Your task to perform on an android device: turn on translation in the chrome app Image 0: 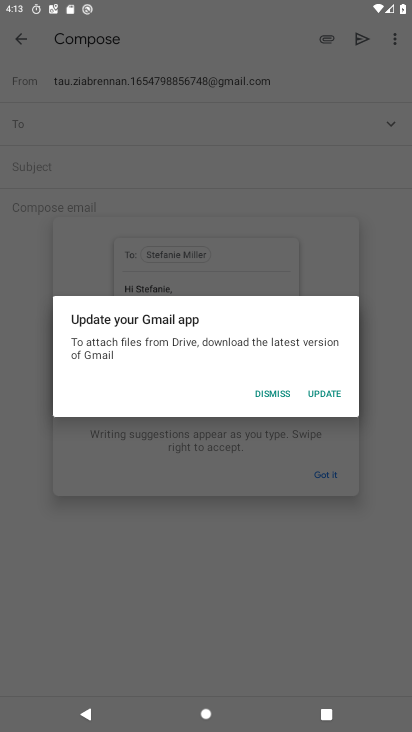
Step 0: press home button
Your task to perform on an android device: turn on translation in the chrome app Image 1: 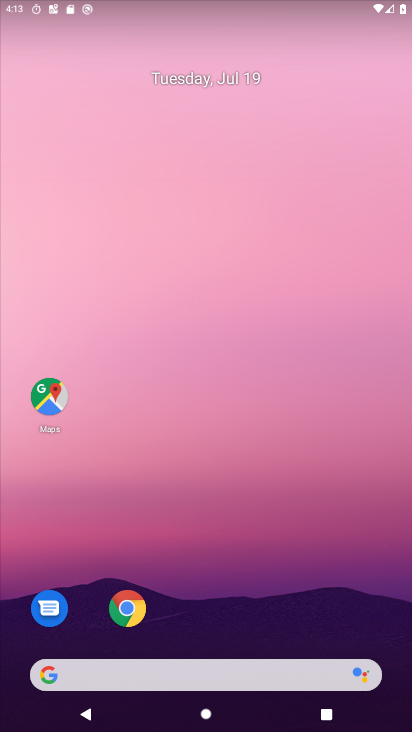
Step 1: click (128, 610)
Your task to perform on an android device: turn on translation in the chrome app Image 2: 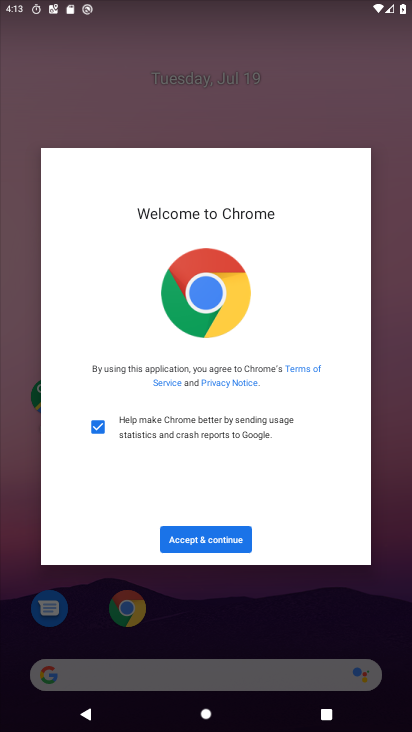
Step 2: click (203, 538)
Your task to perform on an android device: turn on translation in the chrome app Image 3: 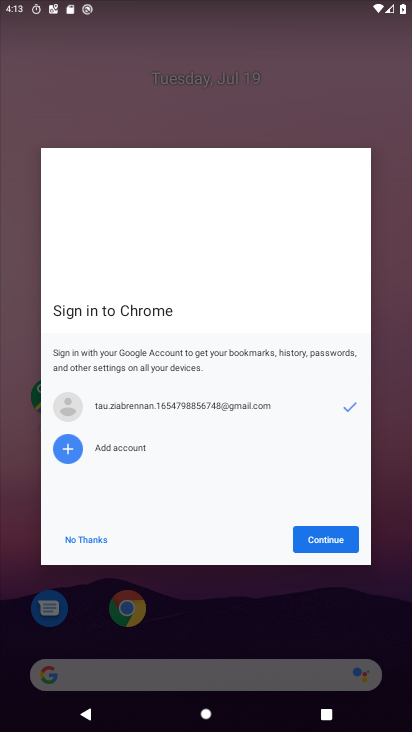
Step 3: click (321, 536)
Your task to perform on an android device: turn on translation in the chrome app Image 4: 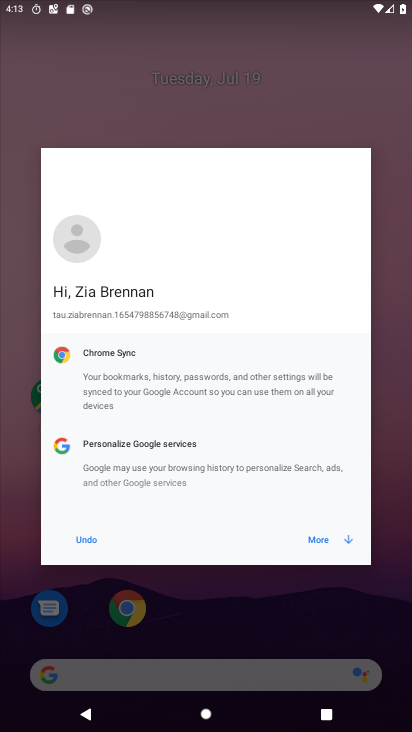
Step 4: click (319, 540)
Your task to perform on an android device: turn on translation in the chrome app Image 5: 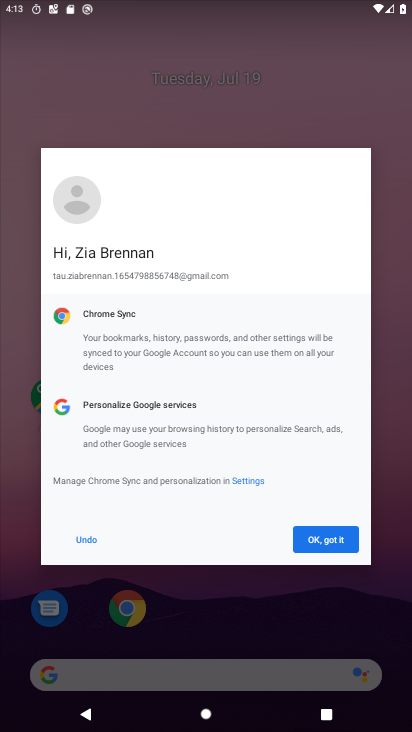
Step 5: click (319, 540)
Your task to perform on an android device: turn on translation in the chrome app Image 6: 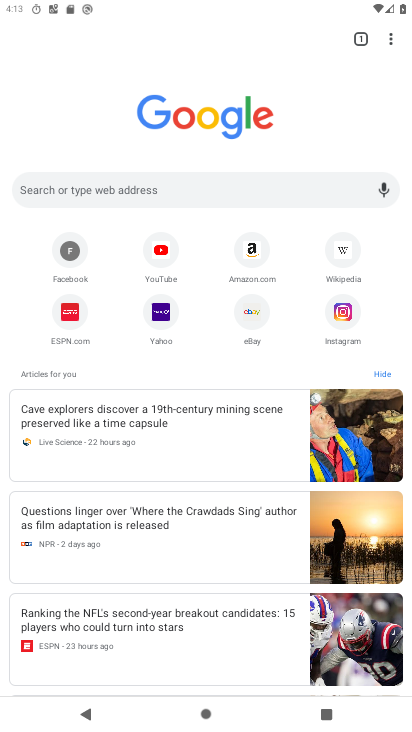
Step 6: click (391, 37)
Your task to perform on an android device: turn on translation in the chrome app Image 7: 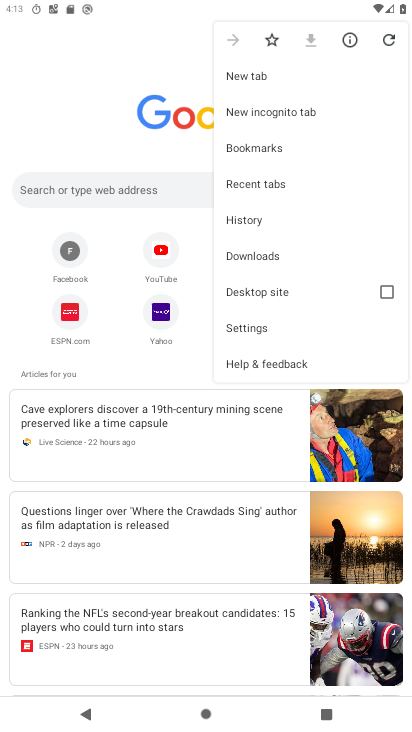
Step 7: click (258, 327)
Your task to perform on an android device: turn on translation in the chrome app Image 8: 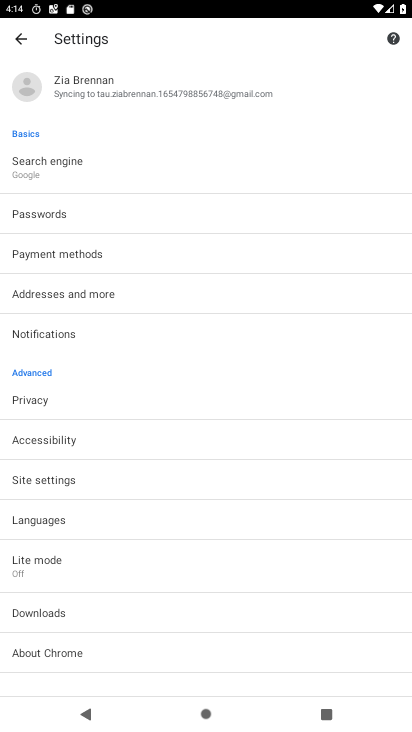
Step 8: click (50, 521)
Your task to perform on an android device: turn on translation in the chrome app Image 9: 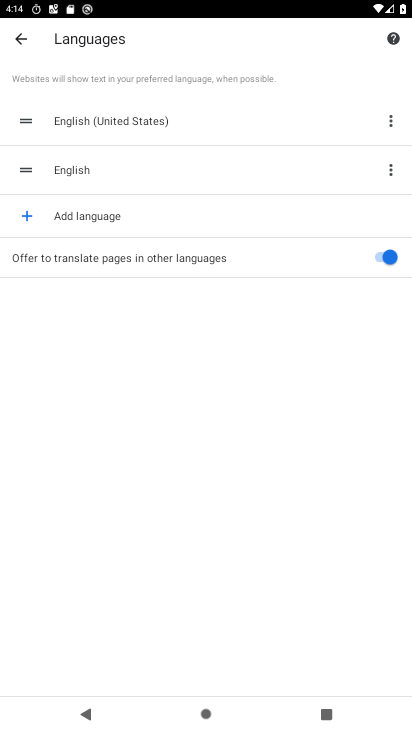
Step 9: task complete